Your task to perform on an android device: open a bookmark in the chrome app Image 0: 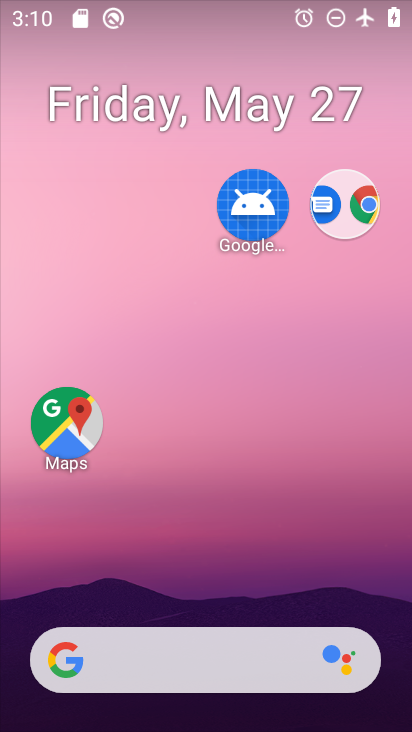
Step 0: drag from (264, 630) to (303, 374)
Your task to perform on an android device: open a bookmark in the chrome app Image 1: 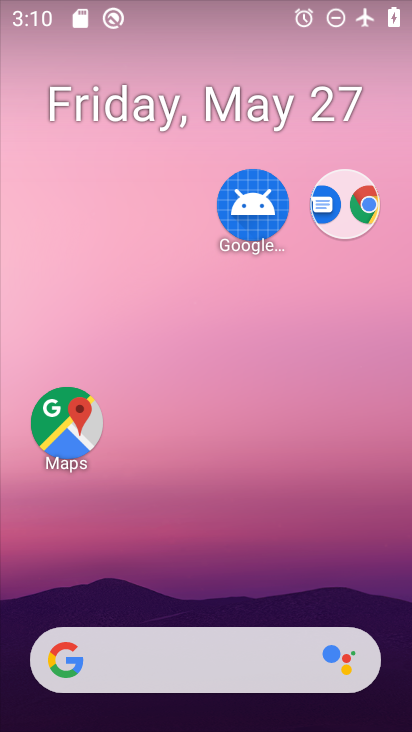
Step 1: drag from (204, 564) to (239, 437)
Your task to perform on an android device: open a bookmark in the chrome app Image 2: 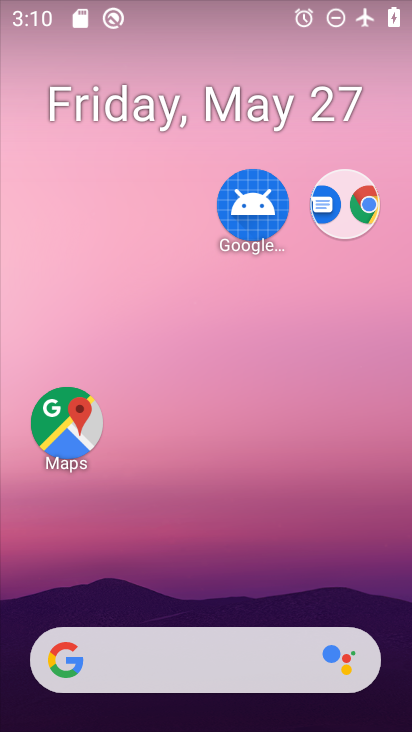
Step 2: drag from (140, 649) to (207, 42)
Your task to perform on an android device: open a bookmark in the chrome app Image 3: 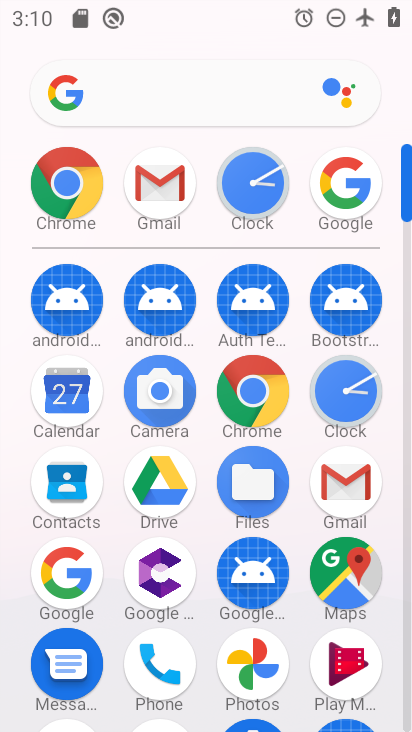
Step 3: click (243, 413)
Your task to perform on an android device: open a bookmark in the chrome app Image 4: 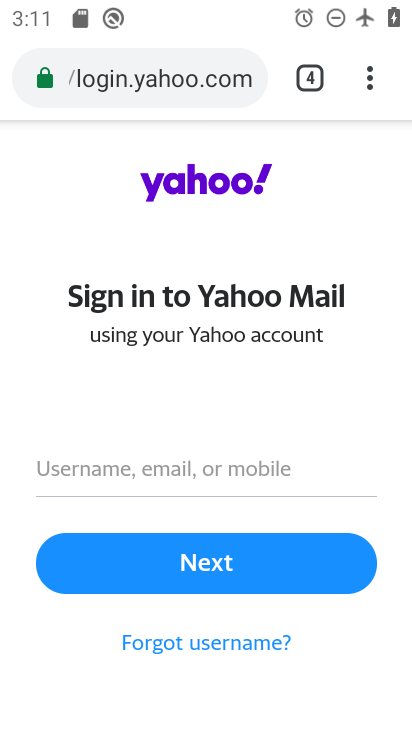
Step 4: click (381, 99)
Your task to perform on an android device: open a bookmark in the chrome app Image 5: 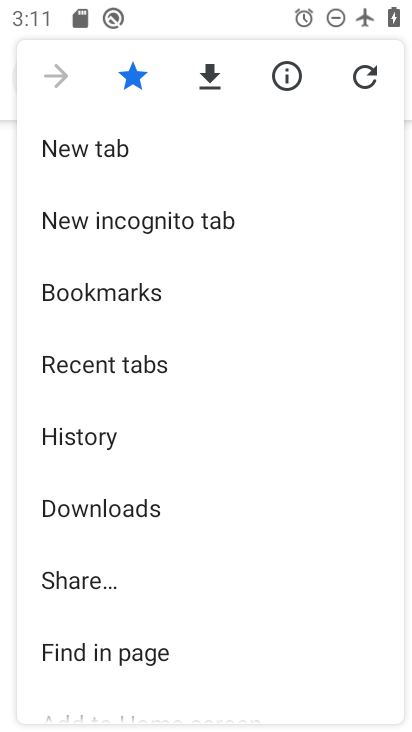
Step 5: click (112, 288)
Your task to perform on an android device: open a bookmark in the chrome app Image 6: 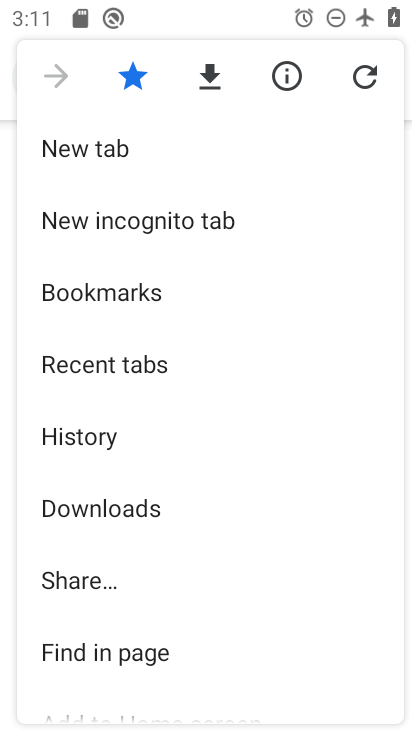
Step 6: click (112, 288)
Your task to perform on an android device: open a bookmark in the chrome app Image 7: 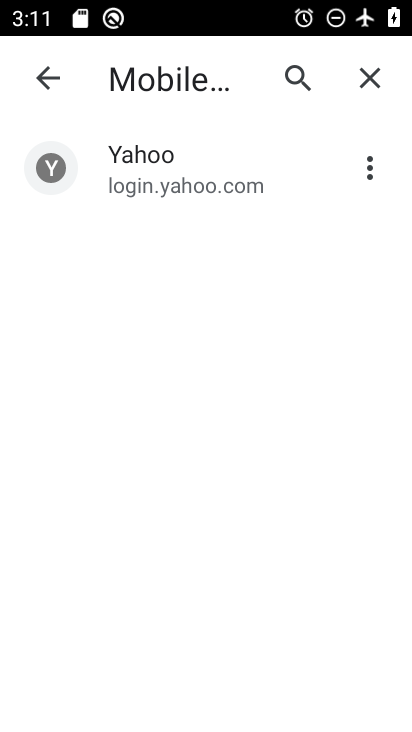
Step 7: click (276, 187)
Your task to perform on an android device: open a bookmark in the chrome app Image 8: 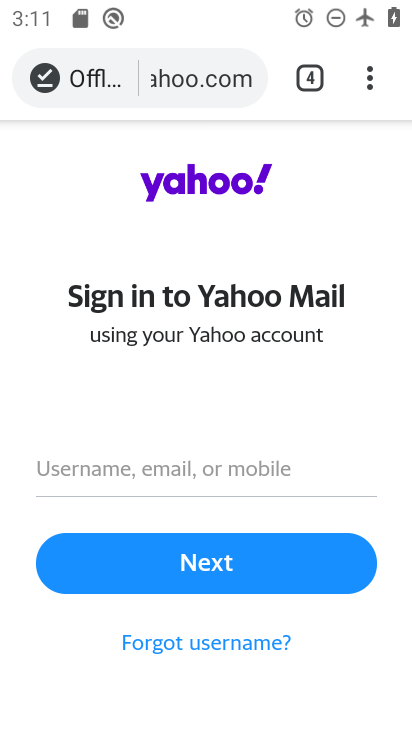
Step 8: task complete